Your task to perform on an android device: set the timer Image 0: 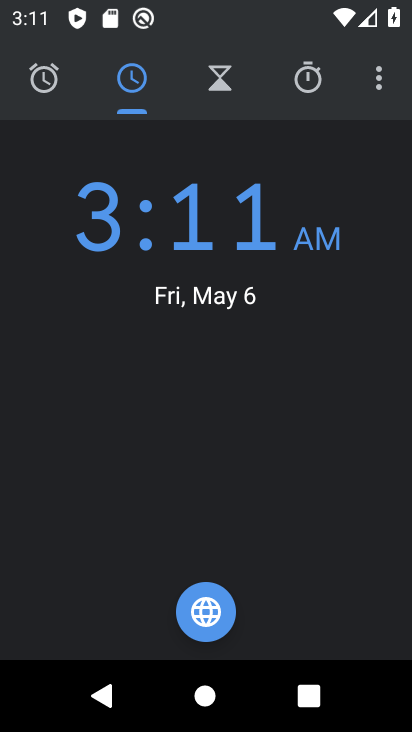
Step 0: click (235, 92)
Your task to perform on an android device: set the timer Image 1: 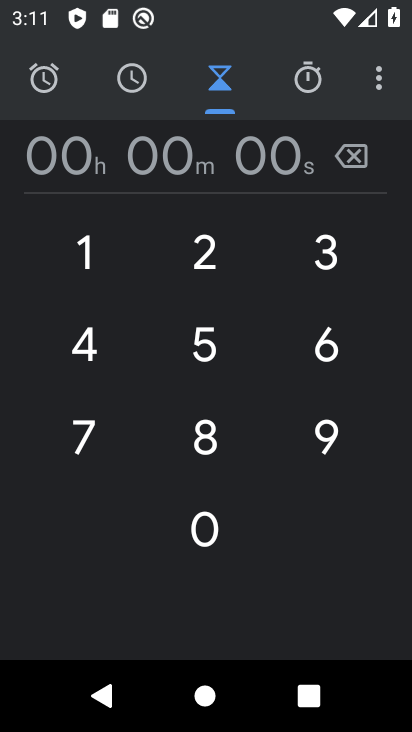
Step 1: click (182, 247)
Your task to perform on an android device: set the timer Image 2: 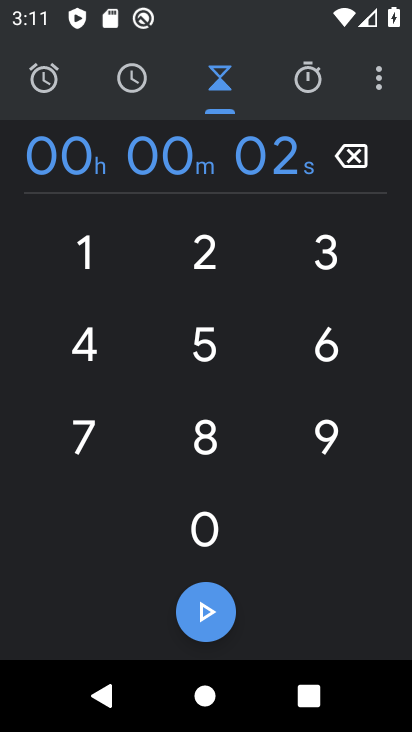
Step 2: click (216, 507)
Your task to perform on an android device: set the timer Image 3: 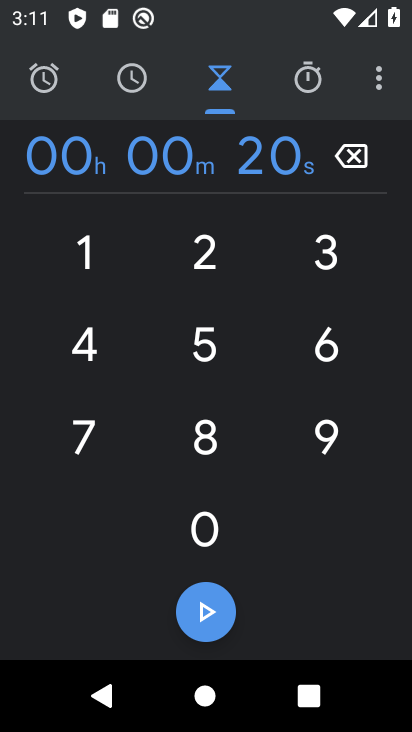
Step 3: click (208, 622)
Your task to perform on an android device: set the timer Image 4: 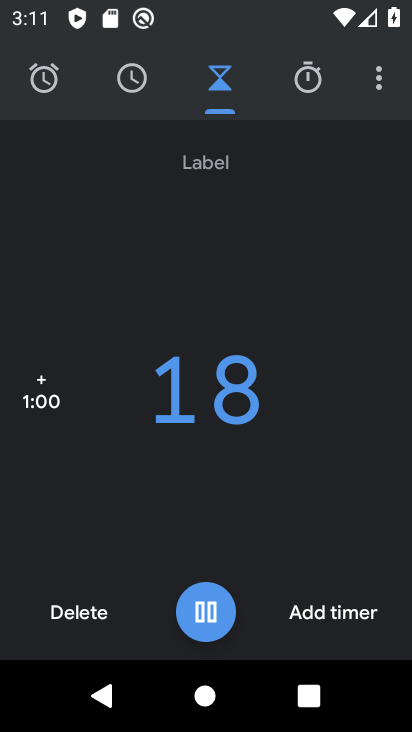
Step 4: task complete